Your task to perform on an android device: Open Google Chrome and click the shortcut for Amazon.com Image 0: 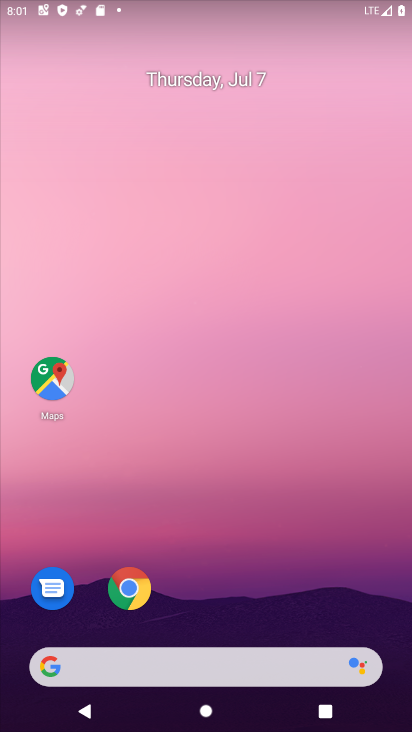
Step 0: drag from (298, 587) to (247, 178)
Your task to perform on an android device: Open Google Chrome and click the shortcut for Amazon.com Image 1: 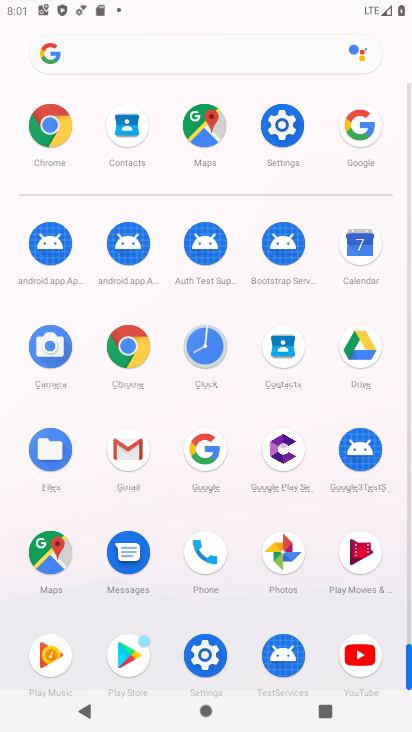
Step 1: click (55, 126)
Your task to perform on an android device: Open Google Chrome and click the shortcut for Amazon.com Image 2: 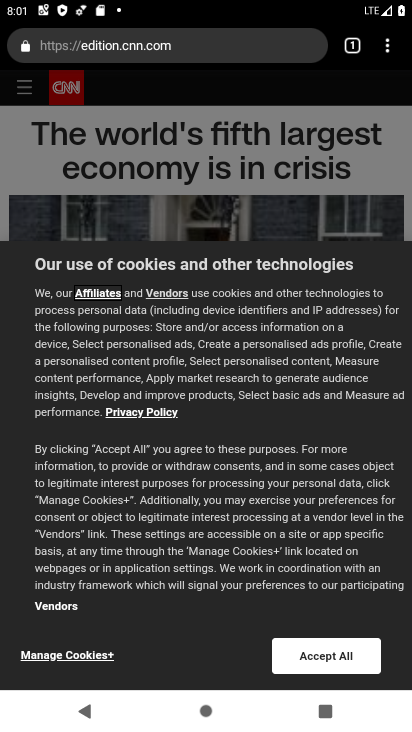
Step 2: click (386, 40)
Your task to perform on an android device: Open Google Chrome and click the shortcut for Amazon.com Image 3: 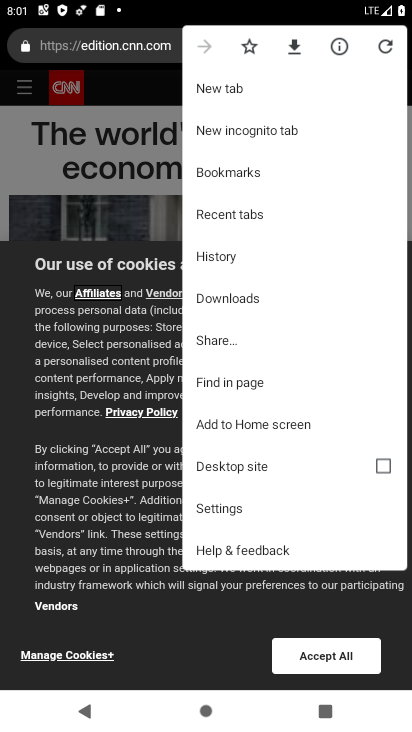
Step 3: click (247, 88)
Your task to perform on an android device: Open Google Chrome and click the shortcut for Amazon.com Image 4: 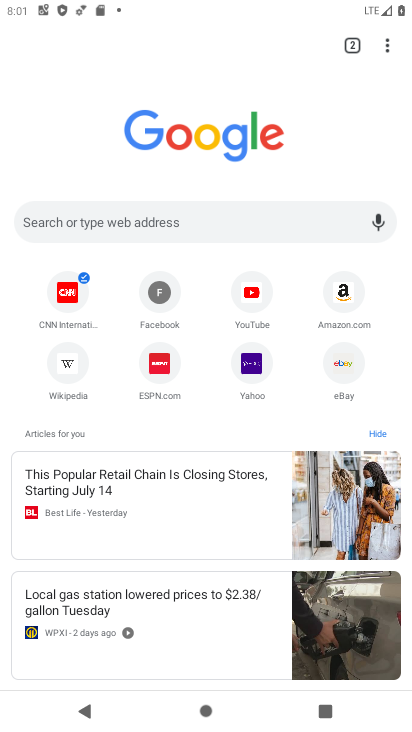
Step 4: click (346, 295)
Your task to perform on an android device: Open Google Chrome and click the shortcut for Amazon.com Image 5: 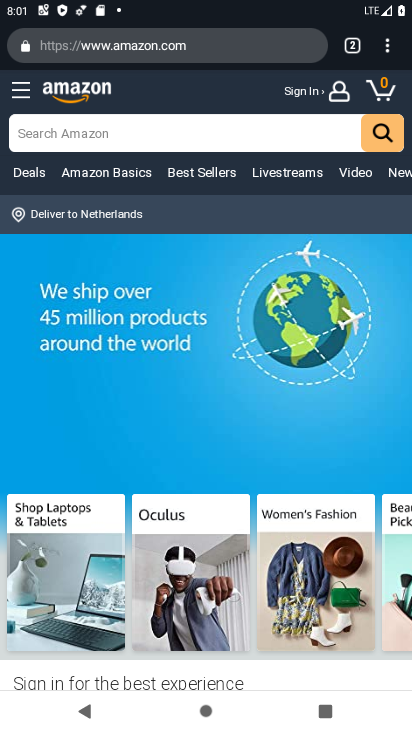
Step 5: task complete